Your task to perform on an android device: find snoozed emails in the gmail app Image 0: 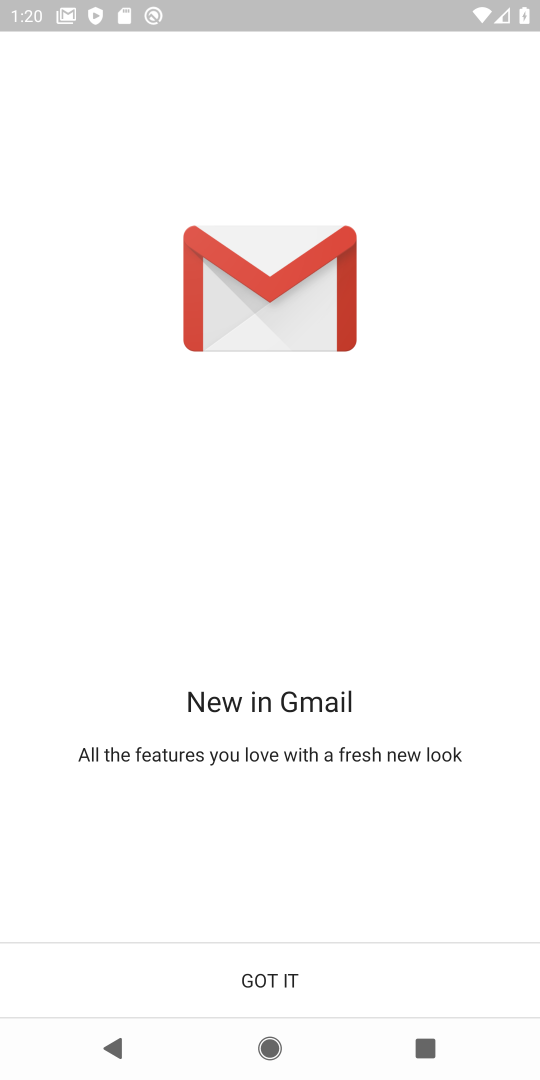
Step 0: press home button
Your task to perform on an android device: find snoozed emails in the gmail app Image 1: 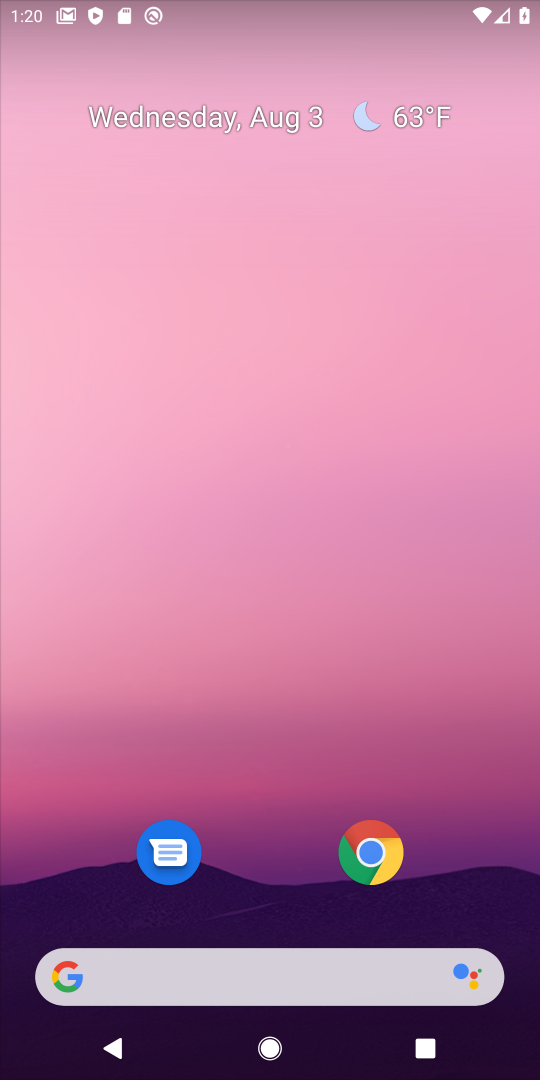
Step 1: drag from (314, 977) to (444, 251)
Your task to perform on an android device: find snoozed emails in the gmail app Image 2: 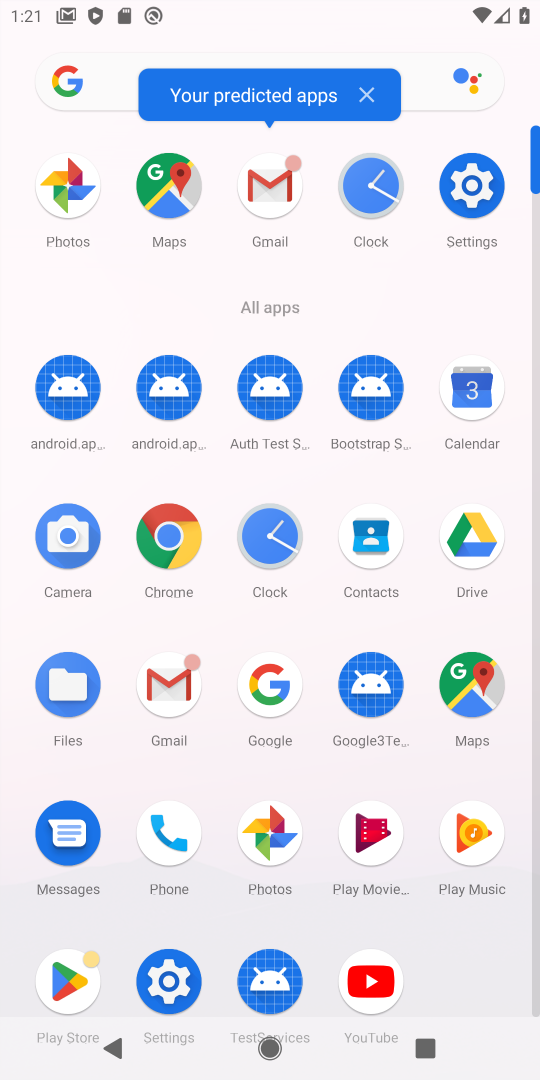
Step 2: click (274, 184)
Your task to perform on an android device: find snoozed emails in the gmail app Image 3: 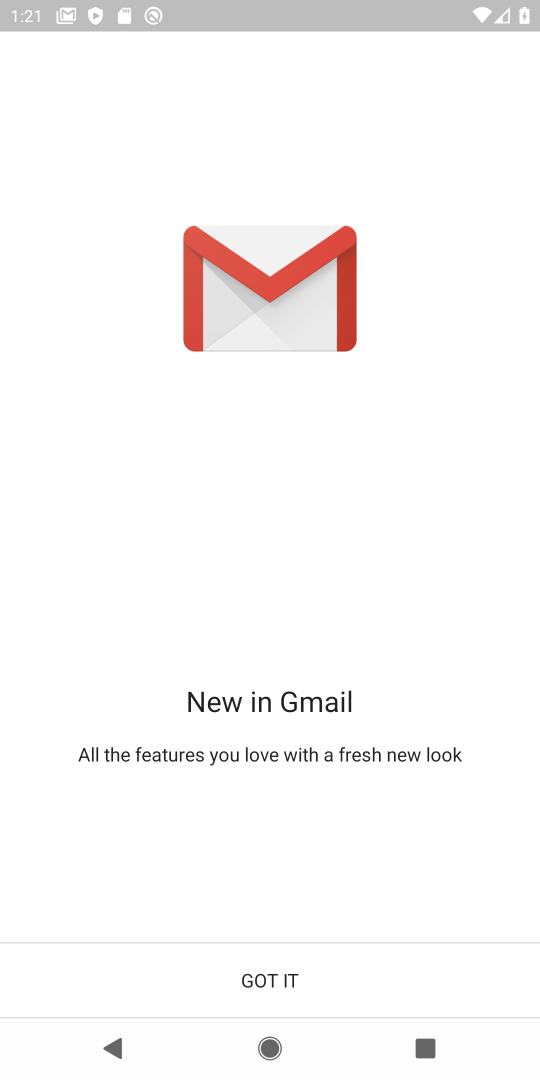
Step 3: click (288, 975)
Your task to perform on an android device: find snoozed emails in the gmail app Image 4: 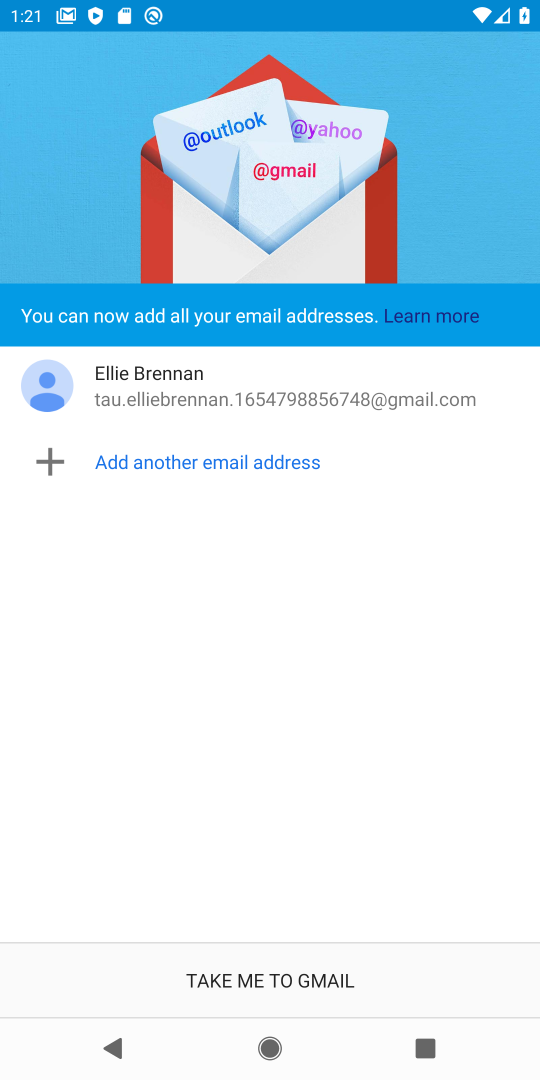
Step 4: click (288, 974)
Your task to perform on an android device: find snoozed emails in the gmail app Image 5: 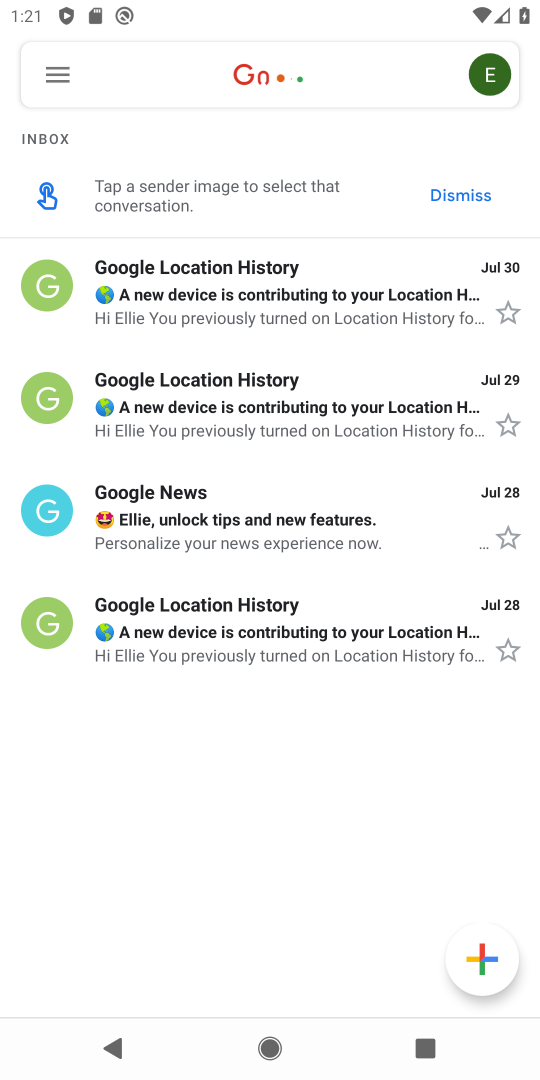
Step 5: click (54, 75)
Your task to perform on an android device: find snoozed emails in the gmail app Image 6: 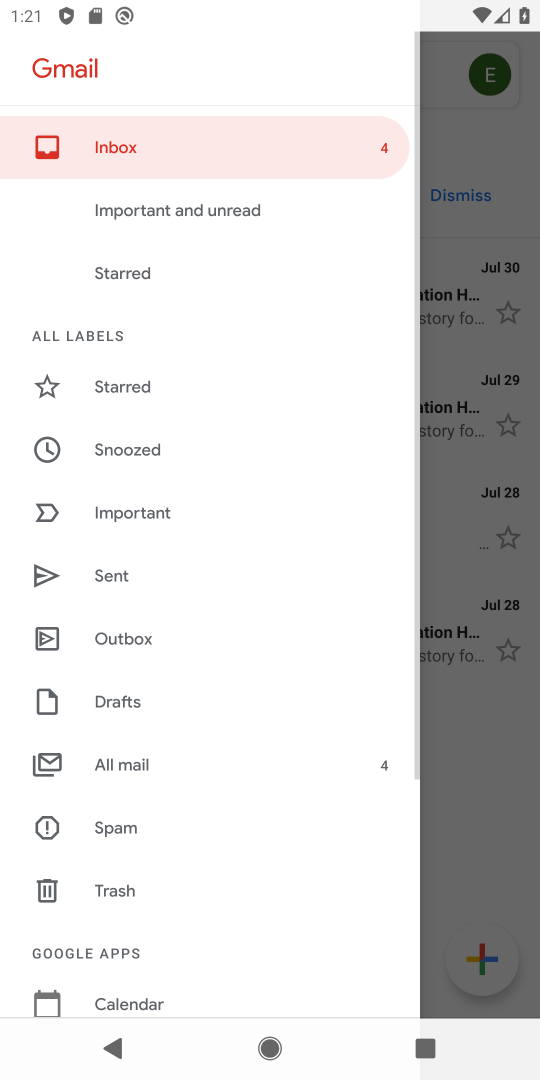
Step 6: click (125, 452)
Your task to perform on an android device: find snoozed emails in the gmail app Image 7: 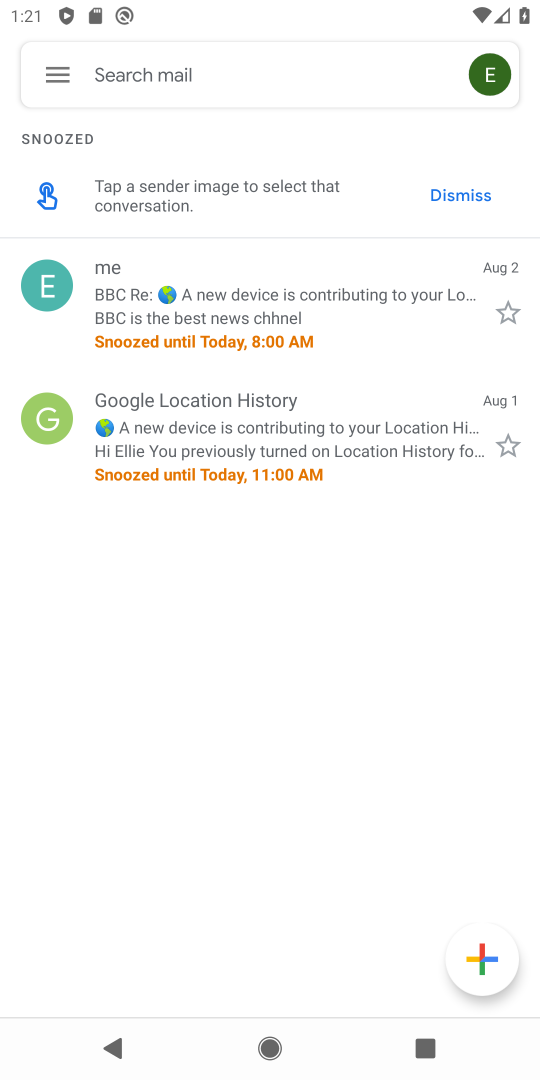
Step 7: task complete